Your task to perform on an android device: open chrome privacy settings Image 0: 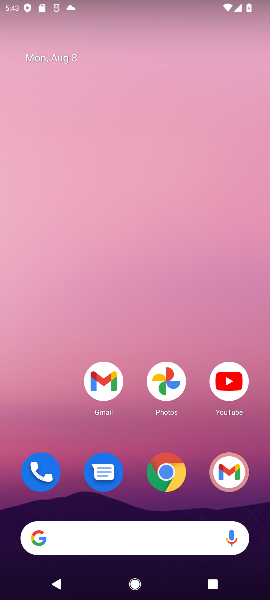
Step 0: press home button
Your task to perform on an android device: open chrome privacy settings Image 1: 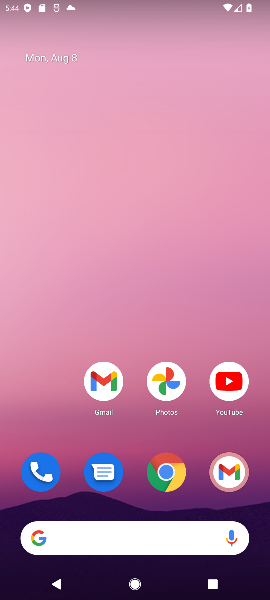
Step 1: click (176, 469)
Your task to perform on an android device: open chrome privacy settings Image 2: 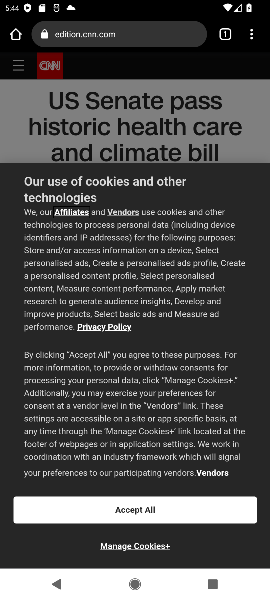
Step 2: drag from (254, 39) to (145, 475)
Your task to perform on an android device: open chrome privacy settings Image 3: 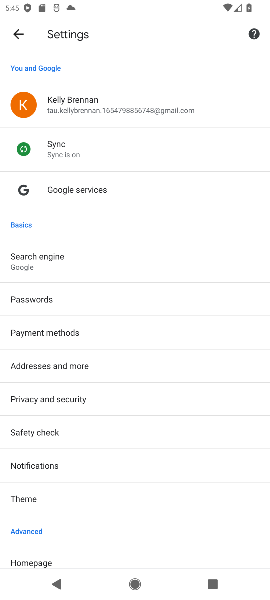
Step 3: click (50, 401)
Your task to perform on an android device: open chrome privacy settings Image 4: 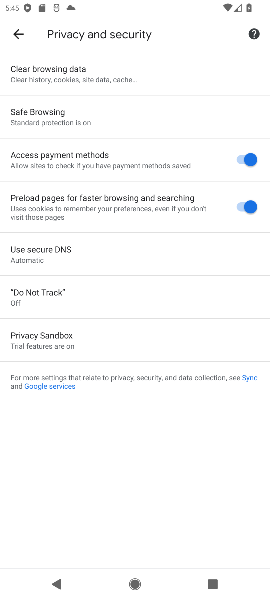
Step 4: task complete